Your task to perform on an android device: empty trash in the gmail app Image 0: 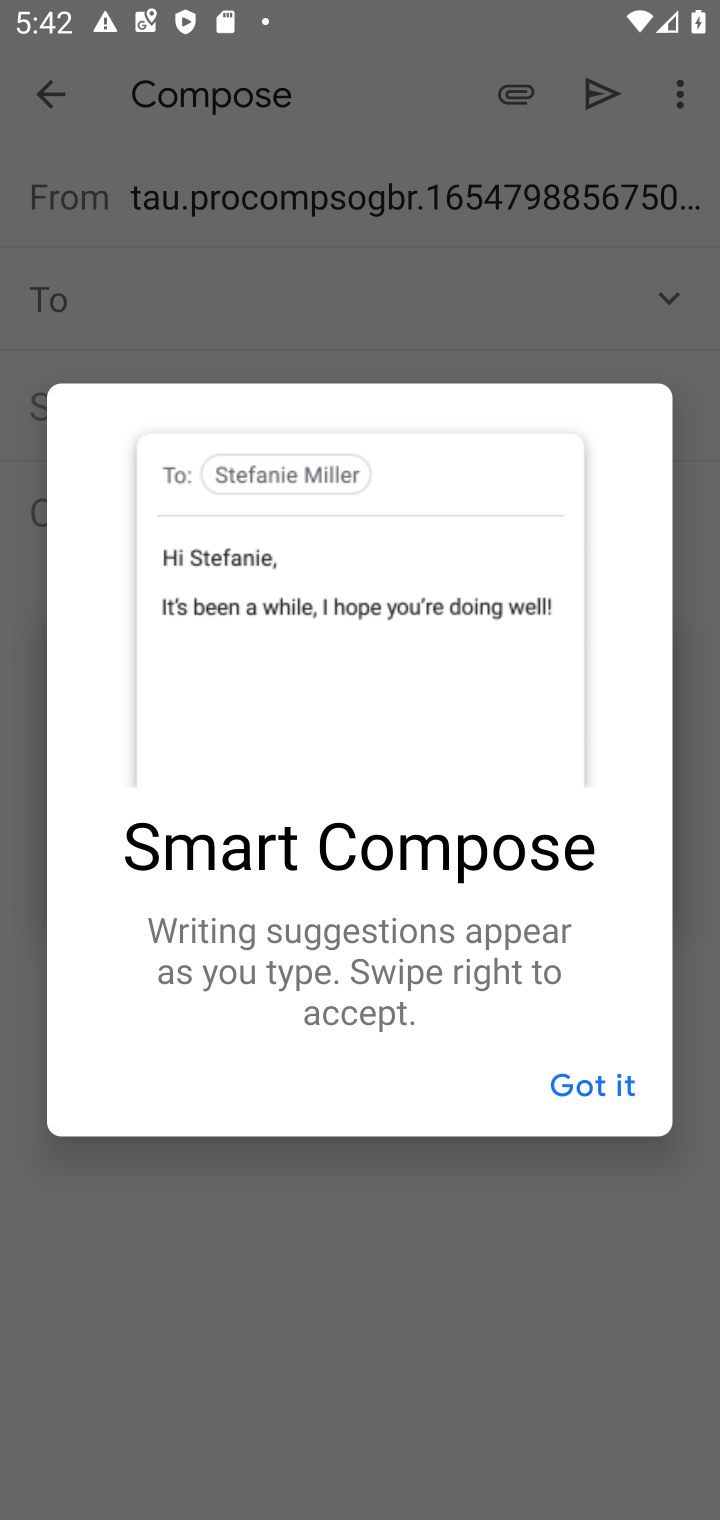
Step 0: click (561, 1080)
Your task to perform on an android device: empty trash in the gmail app Image 1: 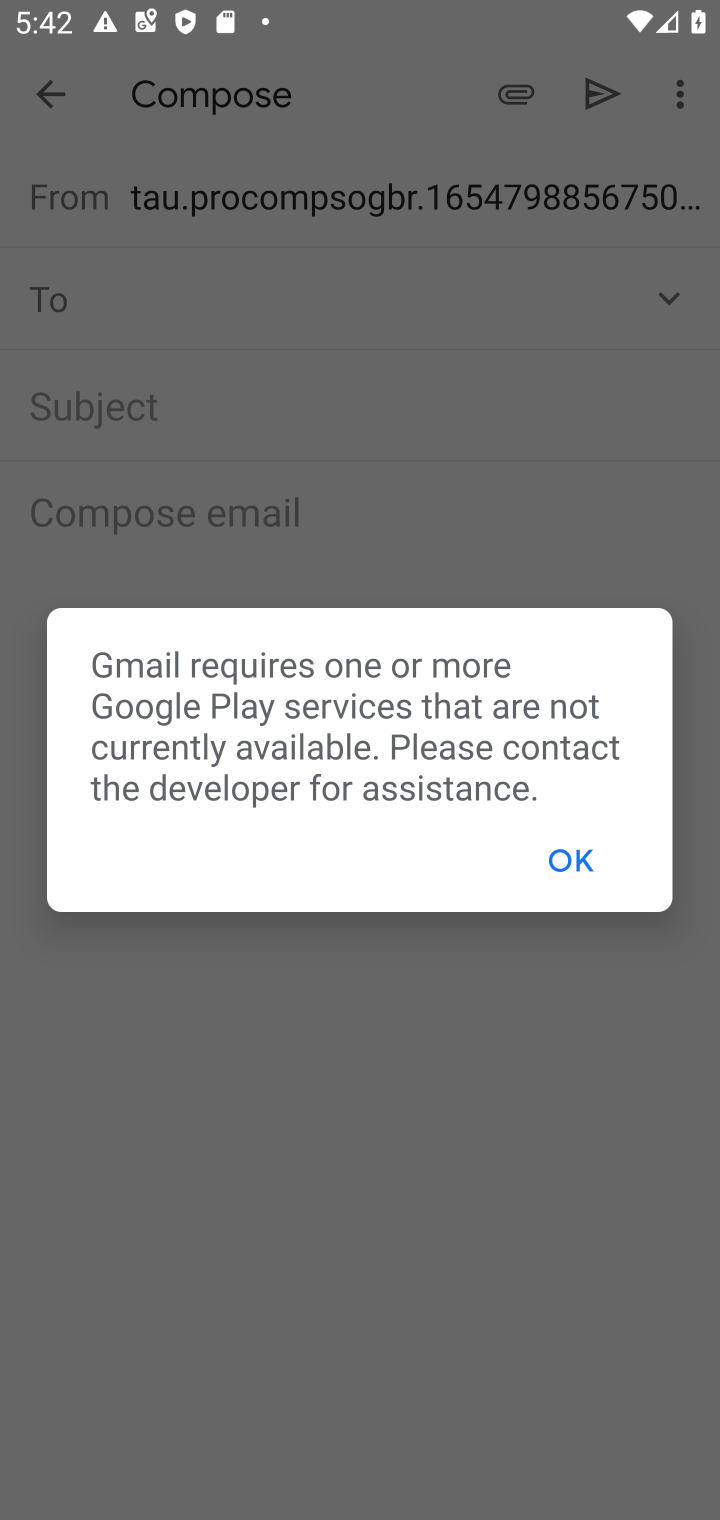
Step 1: click (561, 877)
Your task to perform on an android device: empty trash in the gmail app Image 2: 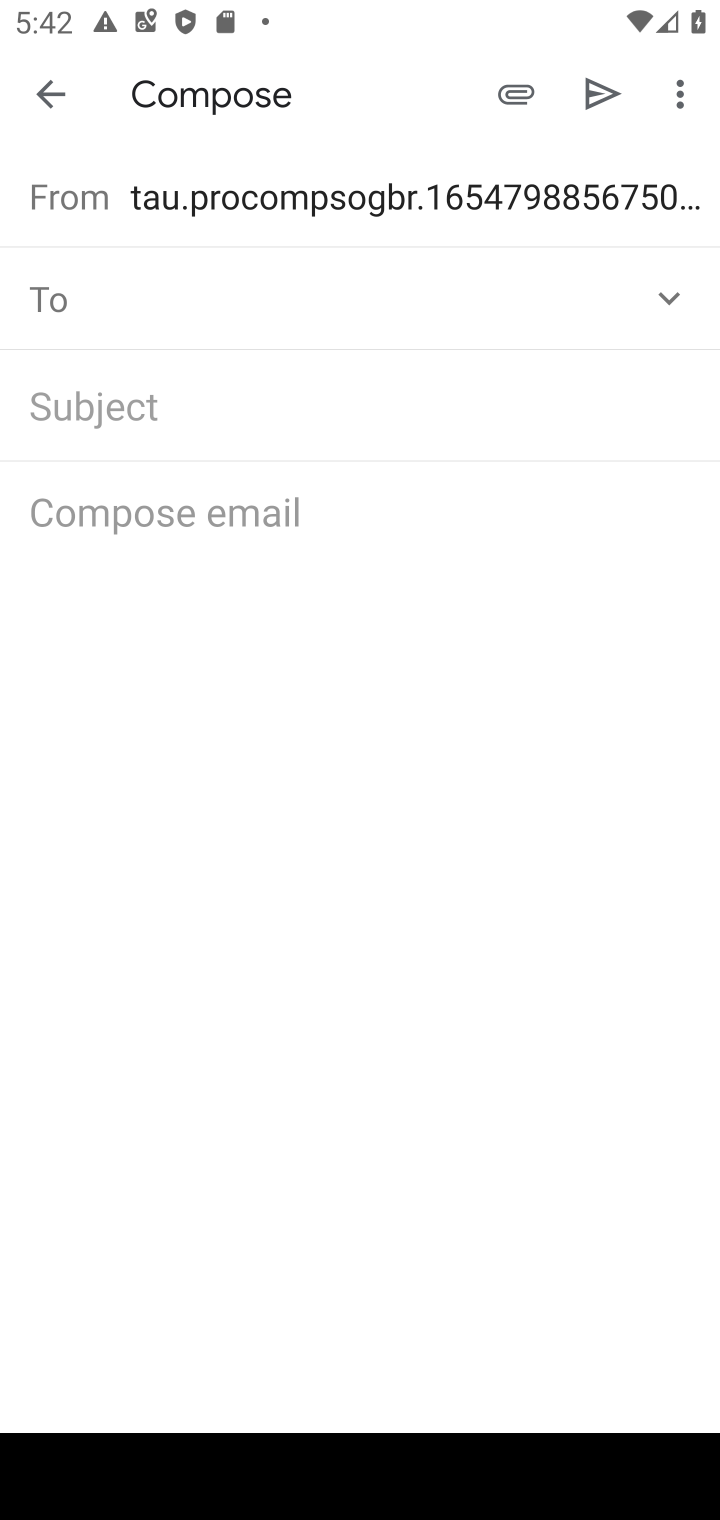
Step 2: task complete